Your task to perform on an android device: Show me the alarms in the clock app Image 0: 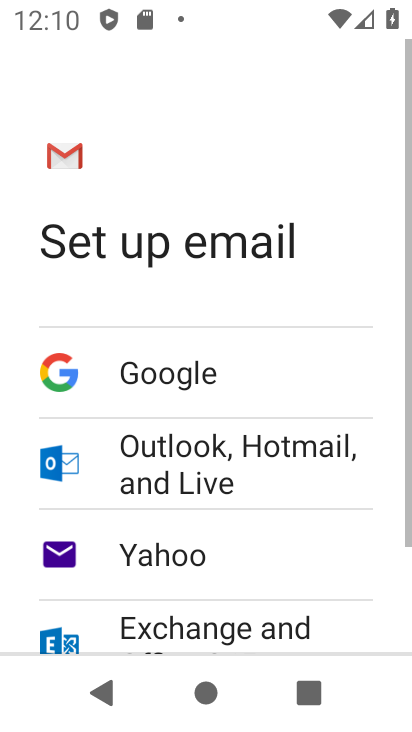
Step 0: press home button
Your task to perform on an android device: Show me the alarms in the clock app Image 1: 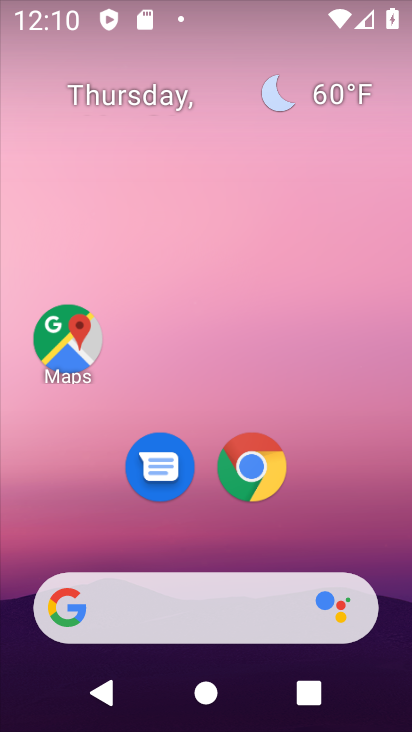
Step 1: drag from (210, 554) to (193, 1)
Your task to perform on an android device: Show me the alarms in the clock app Image 2: 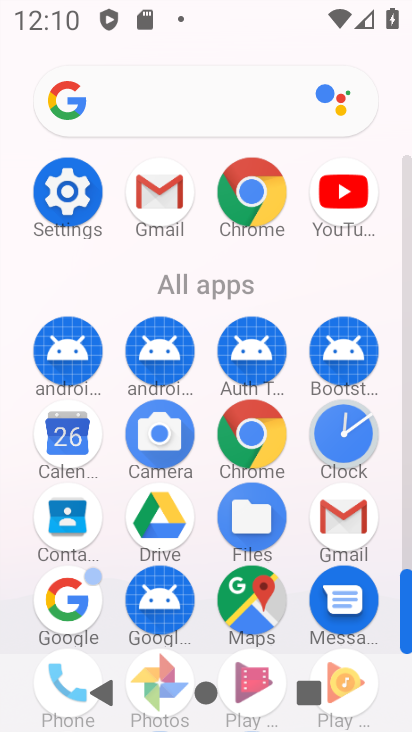
Step 2: click (357, 436)
Your task to perform on an android device: Show me the alarms in the clock app Image 3: 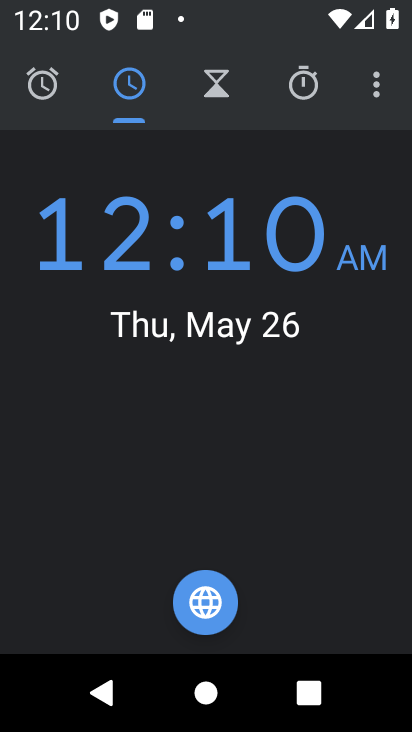
Step 3: click (60, 95)
Your task to perform on an android device: Show me the alarms in the clock app Image 4: 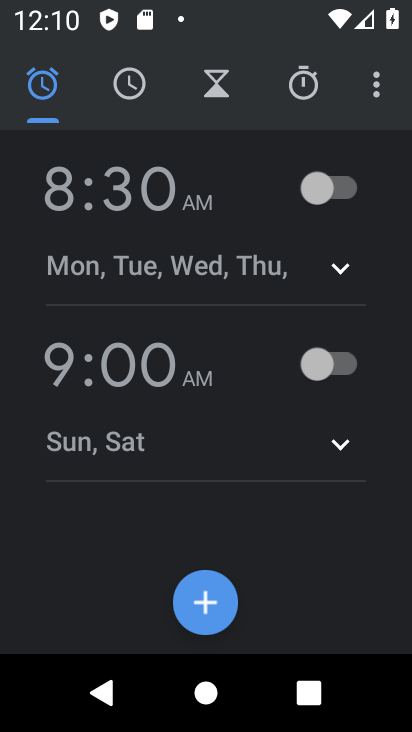
Step 4: task complete